Your task to perform on an android device: refresh tabs in the chrome app Image 0: 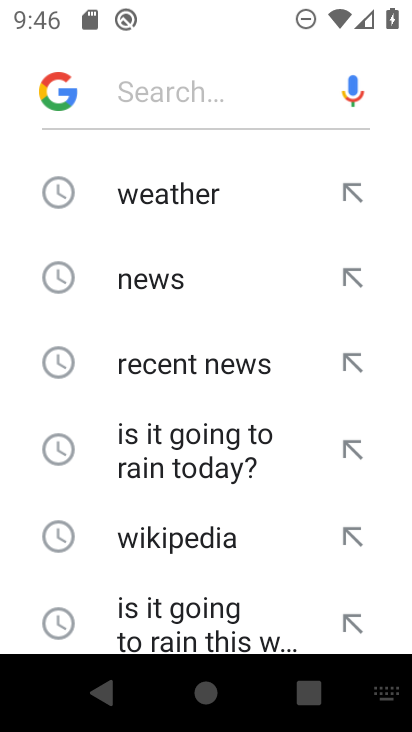
Step 0: press home button
Your task to perform on an android device: refresh tabs in the chrome app Image 1: 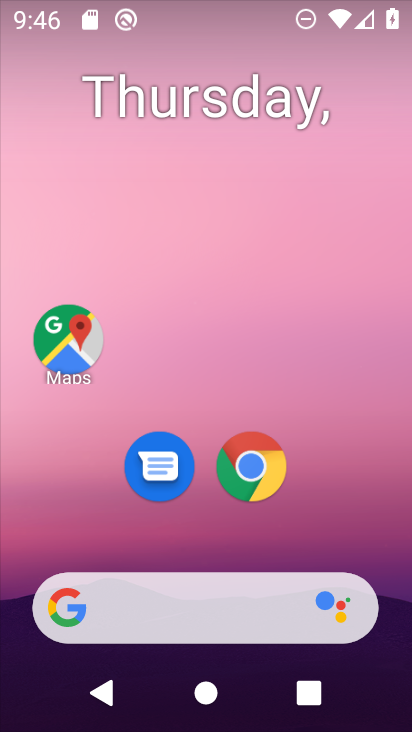
Step 1: drag from (289, 580) to (245, 51)
Your task to perform on an android device: refresh tabs in the chrome app Image 2: 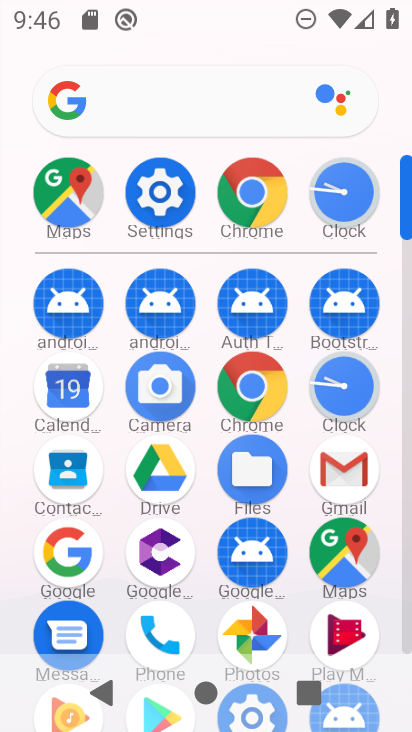
Step 2: click (373, 389)
Your task to perform on an android device: refresh tabs in the chrome app Image 3: 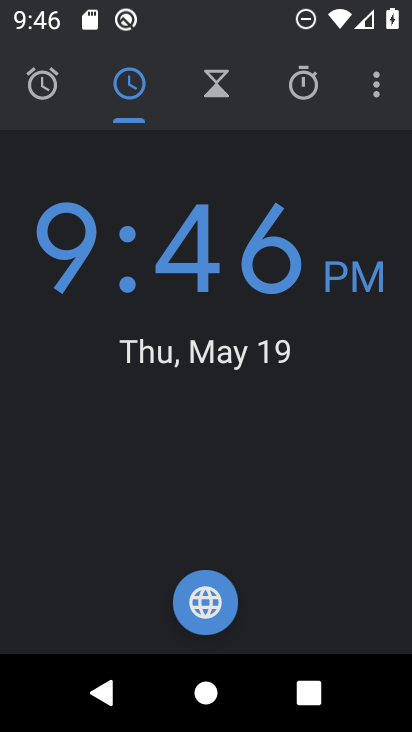
Step 3: click (254, 389)
Your task to perform on an android device: refresh tabs in the chrome app Image 4: 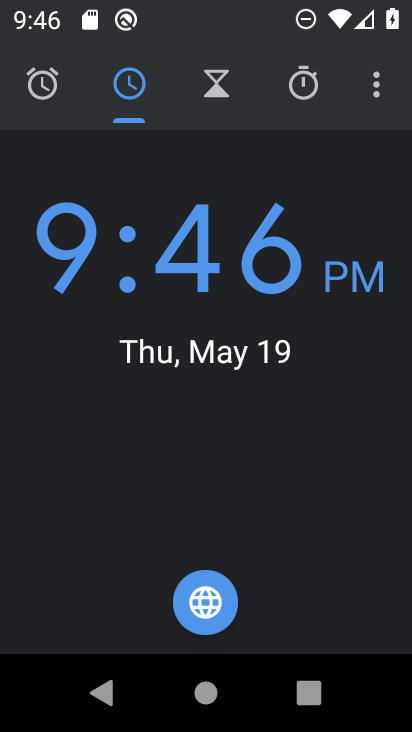
Step 4: press back button
Your task to perform on an android device: refresh tabs in the chrome app Image 5: 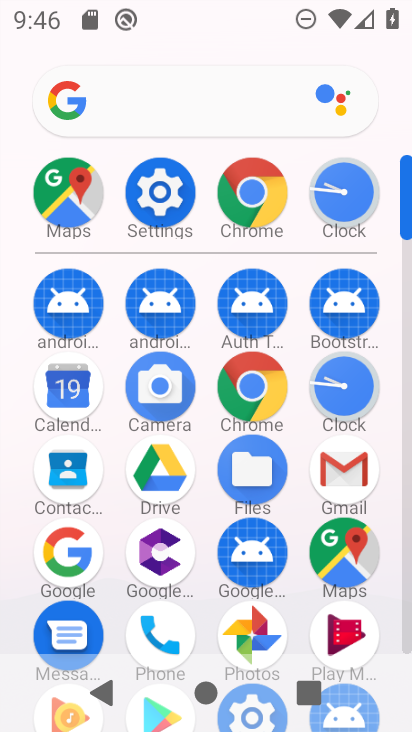
Step 5: click (269, 388)
Your task to perform on an android device: refresh tabs in the chrome app Image 6: 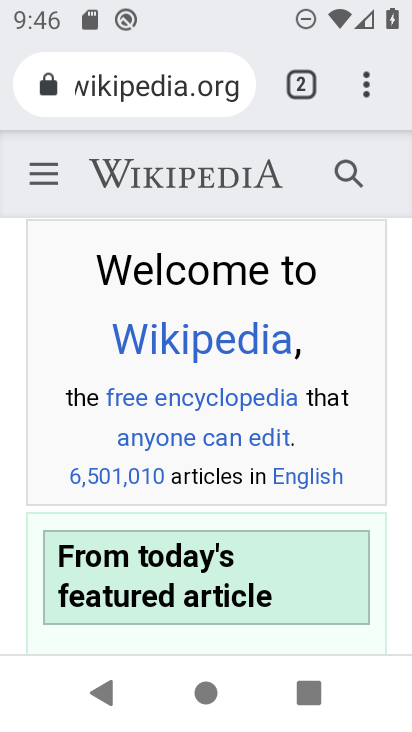
Step 6: task complete